Your task to perform on an android device: empty trash in google photos Image 0: 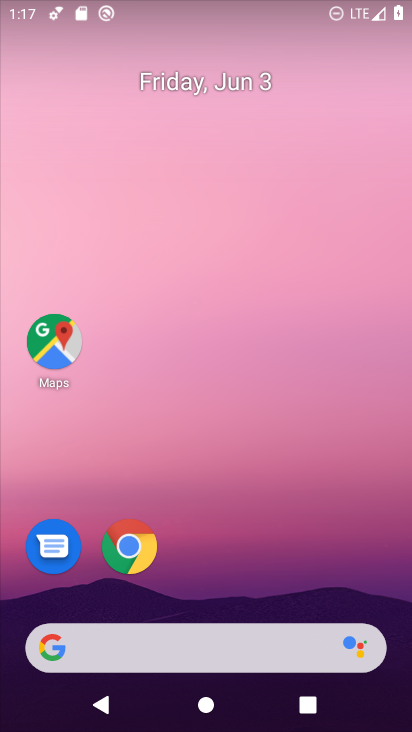
Step 0: drag from (255, 541) to (219, 119)
Your task to perform on an android device: empty trash in google photos Image 1: 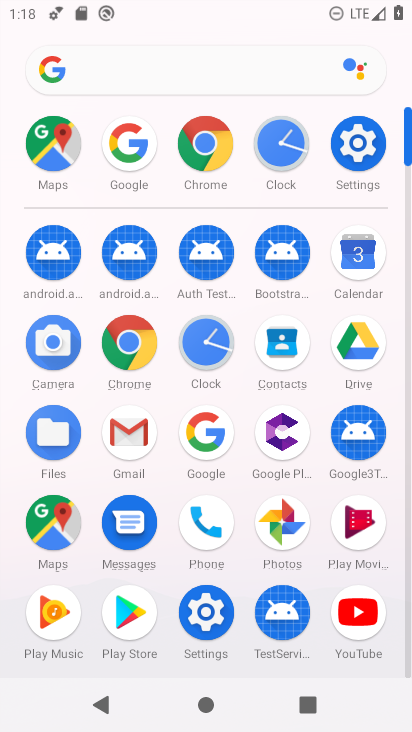
Step 1: click (280, 522)
Your task to perform on an android device: empty trash in google photos Image 2: 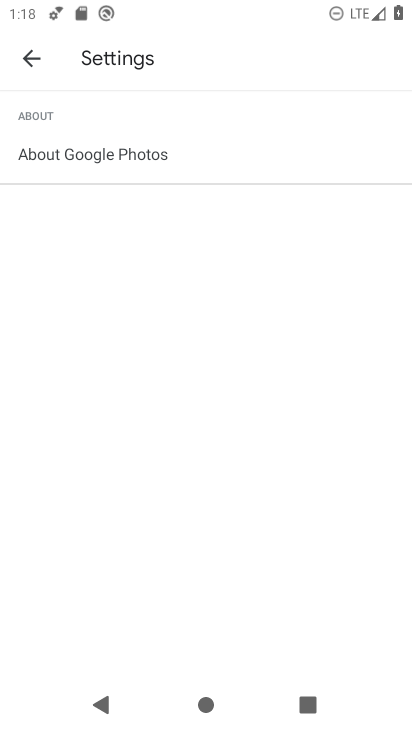
Step 2: click (30, 63)
Your task to perform on an android device: empty trash in google photos Image 3: 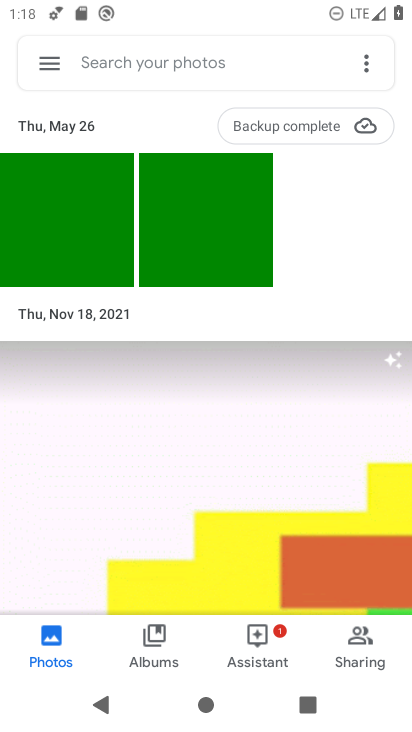
Step 3: click (53, 65)
Your task to perform on an android device: empty trash in google photos Image 4: 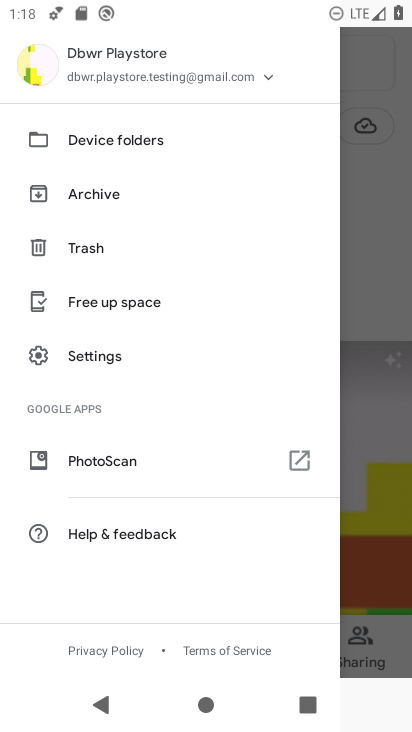
Step 4: click (90, 250)
Your task to perform on an android device: empty trash in google photos Image 5: 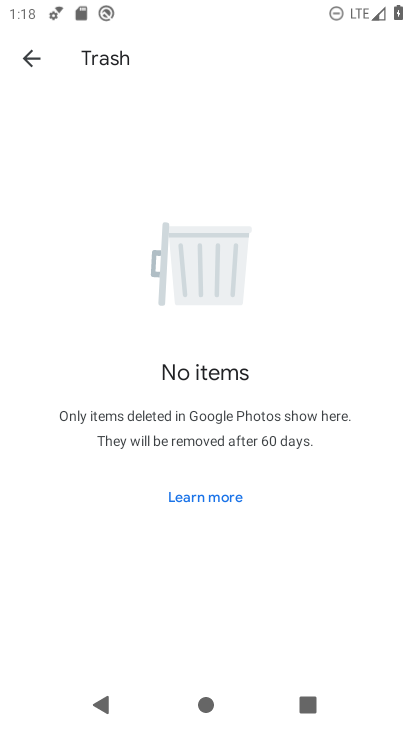
Step 5: task complete